Your task to perform on an android device: Go to accessibility settings Image 0: 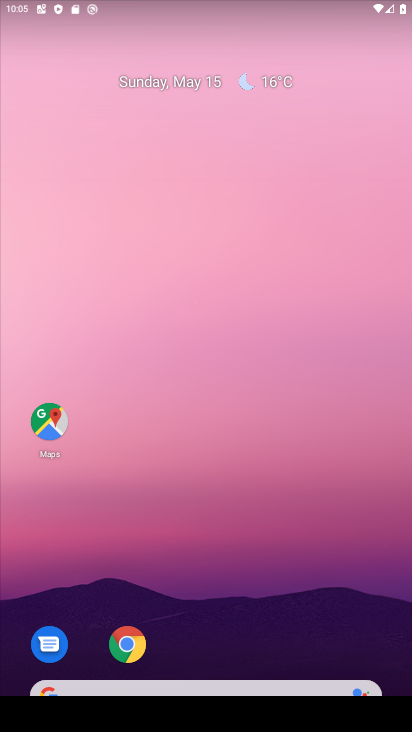
Step 0: drag from (352, 528) to (324, 95)
Your task to perform on an android device: Go to accessibility settings Image 1: 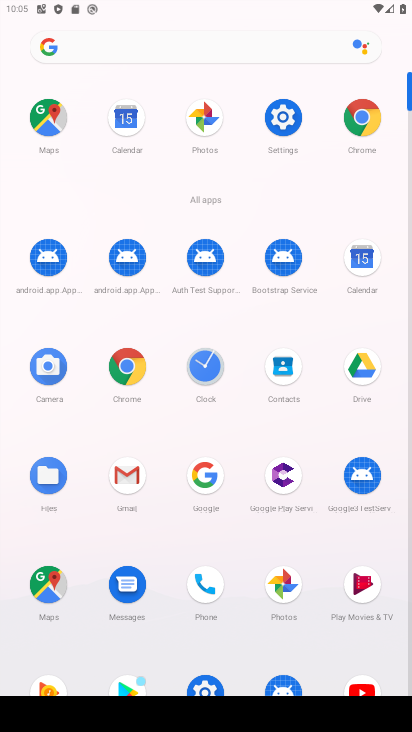
Step 1: click (278, 126)
Your task to perform on an android device: Go to accessibility settings Image 2: 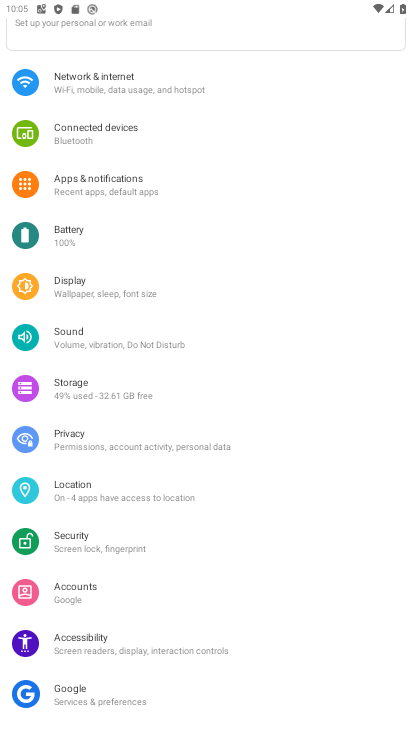
Step 2: click (136, 649)
Your task to perform on an android device: Go to accessibility settings Image 3: 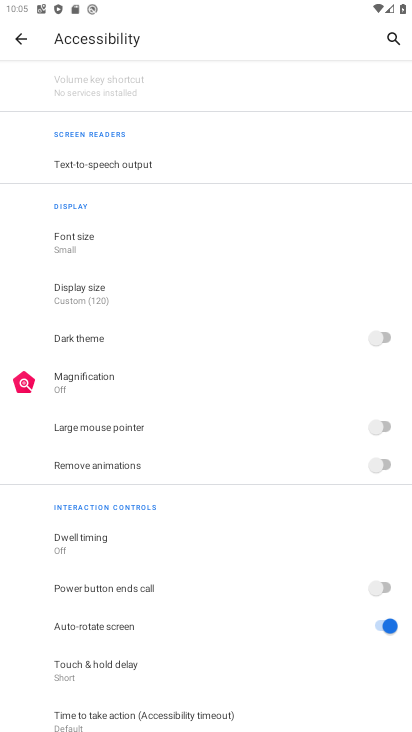
Step 3: task complete